Your task to perform on an android device: How do I get to the nearest Verizon Store? Image 0: 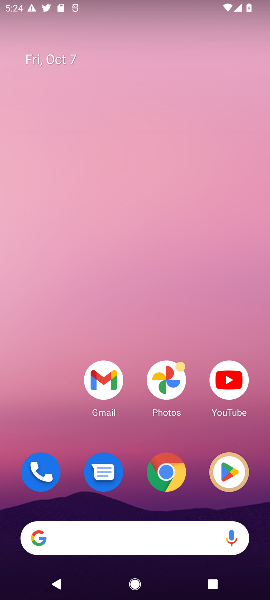
Step 0: drag from (223, 426) to (219, 275)
Your task to perform on an android device: How do I get to the nearest Verizon Store? Image 1: 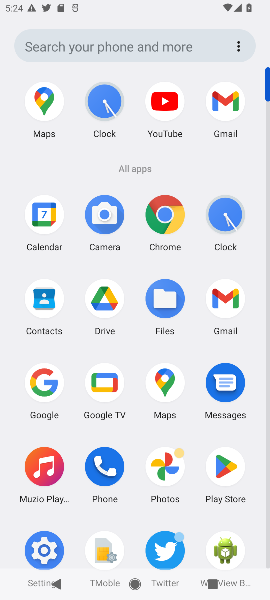
Step 1: click (166, 395)
Your task to perform on an android device: How do I get to the nearest Verizon Store? Image 2: 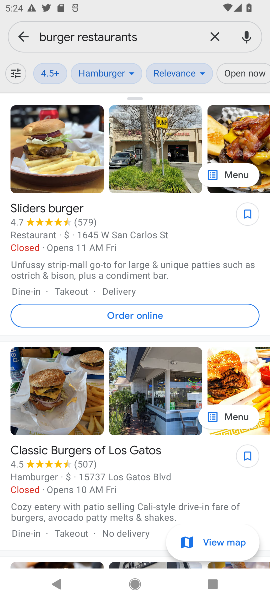
Step 2: click (134, 35)
Your task to perform on an android device: How do I get to the nearest Verizon Store? Image 3: 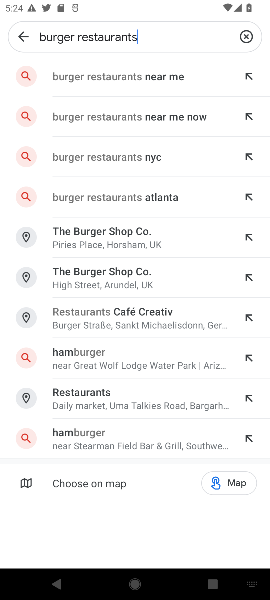
Step 3: click (246, 33)
Your task to perform on an android device: How do I get to the nearest Verizon Store? Image 4: 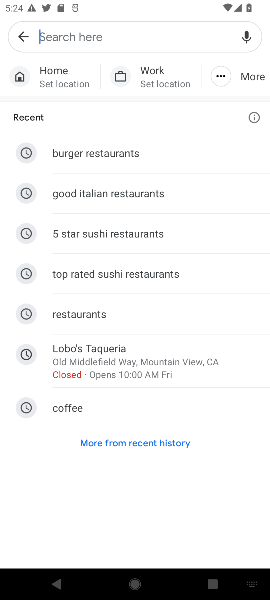
Step 4: type "nearest Verizon Store"
Your task to perform on an android device: How do I get to the nearest Verizon Store? Image 5: 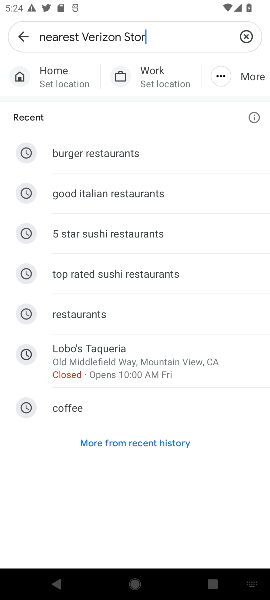
Step 5: type ""
Your task to perform on an android device: How do I get to the nearest Verizon Store? Image 6: 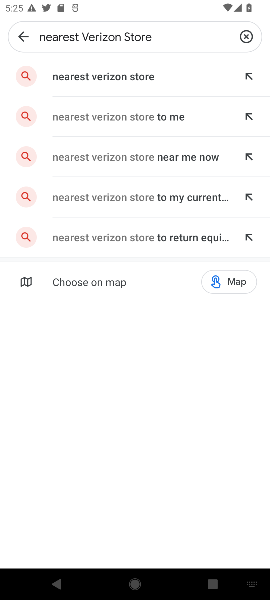
Step 6: click (117, 72)
Your task to perform on an android device: How do I get to the nearest Verizon Store? Image 7: 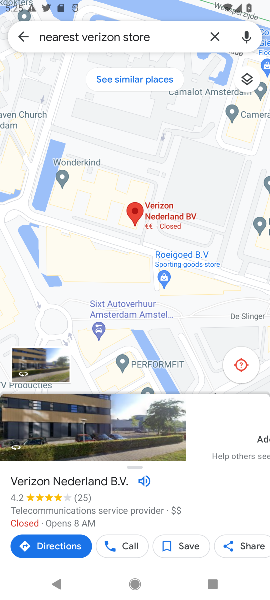
Step 7: task complete